Your task to perform on an android device: Open sound settings Image 0: 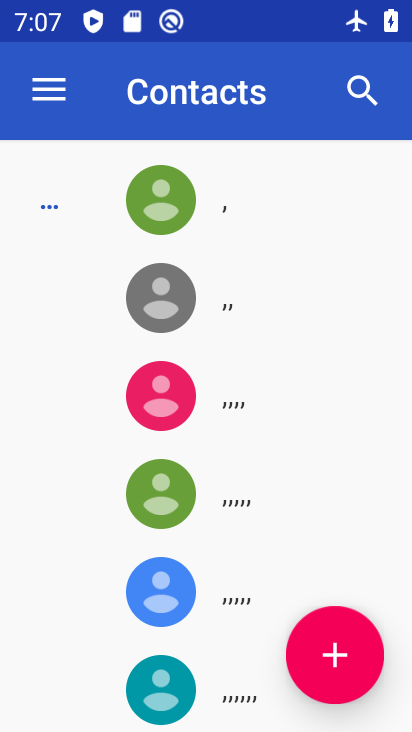
Step 0: press home button
Your task to perform on an android device: Open sound settings Image 1: 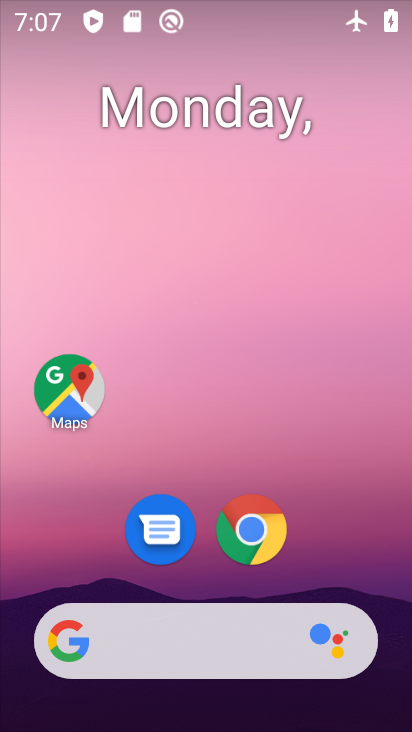
Step 1: drag from (323, 534) to (210, 138)
Your task to perform on an android device: Open sound settings Image 2: 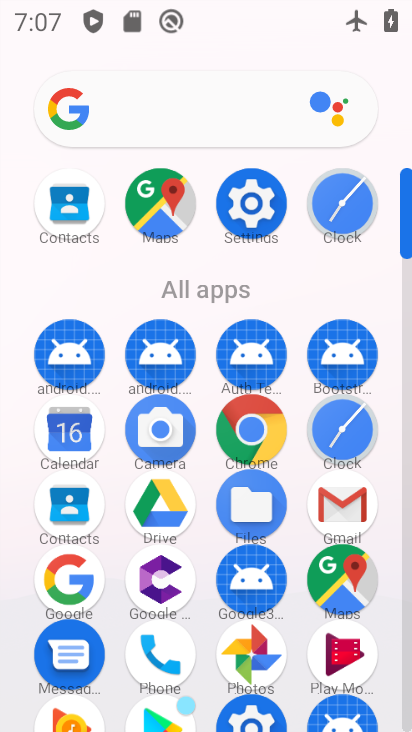
Step 2: click (251, 200)
Your task to perform on an android device: Open sound settings Image 3: 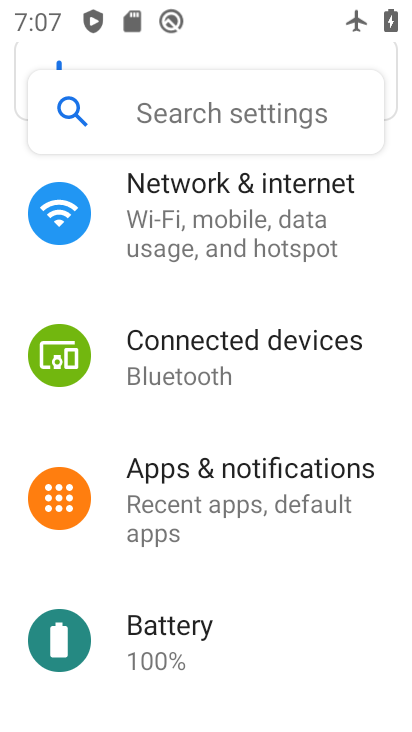
Step 3: drag from (276, 532) to (217, 222)
Your task to perform on an android device: Open sound settings Image 4: 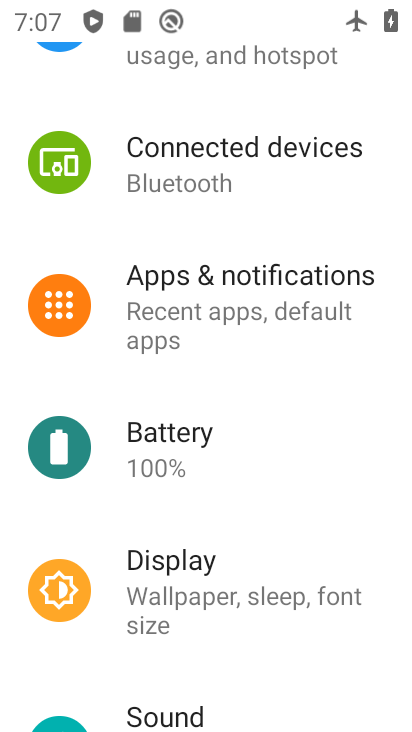
Step 4: drag from (233, 511) to (180, 267)
Your task to perform on an android device: Open sound settings Image 5: 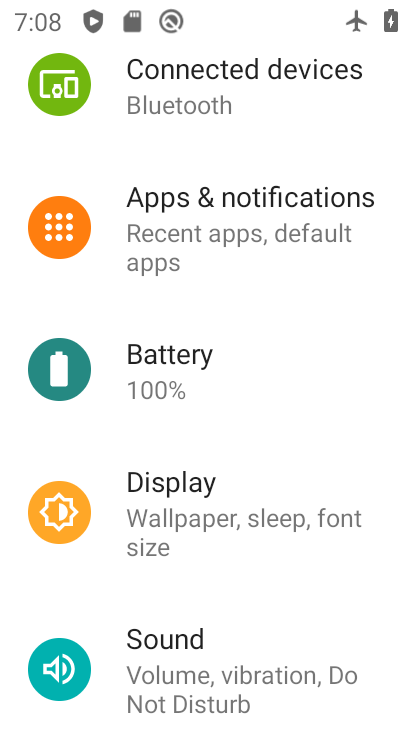
Step 5: click (157, 634)
Your task to perform on an android device: Open sound settings Image 6: 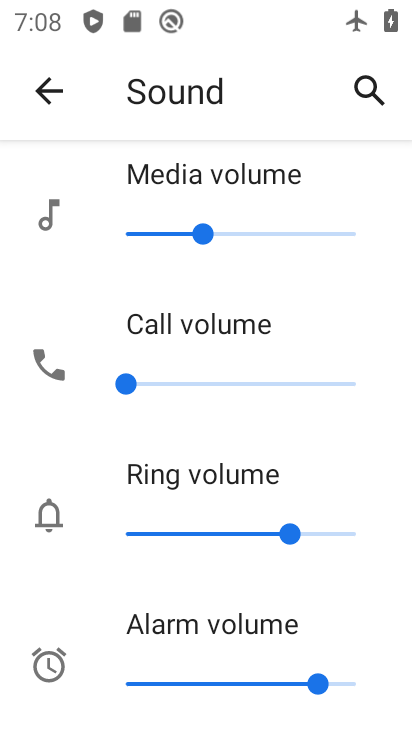
Step 6: task complete